Your task to perform on an android device: Go to display settings Image 0: 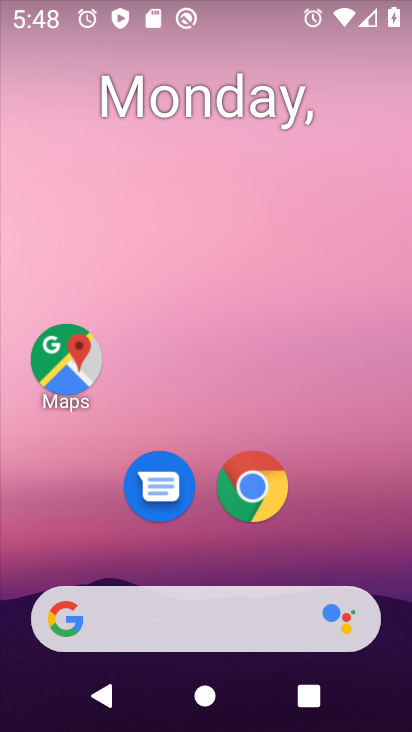
Step 0: drag from (287, 539) to (347, 119)
Your task to perform on an android device: Go to display settings Image 1: 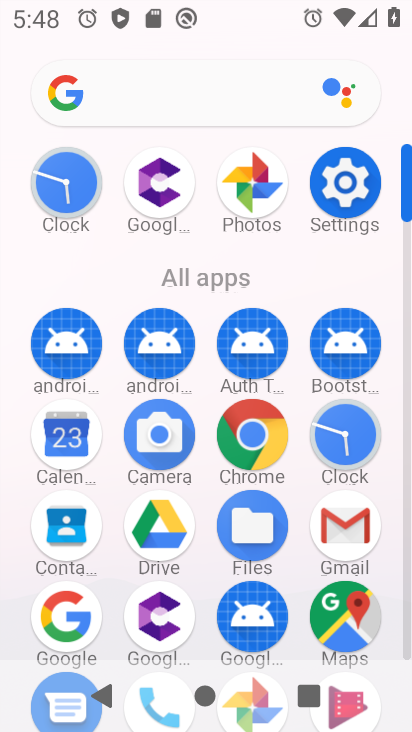
Step 1: click (347, 190)
Your task to perform on an android device: Go to display settings Image 2: 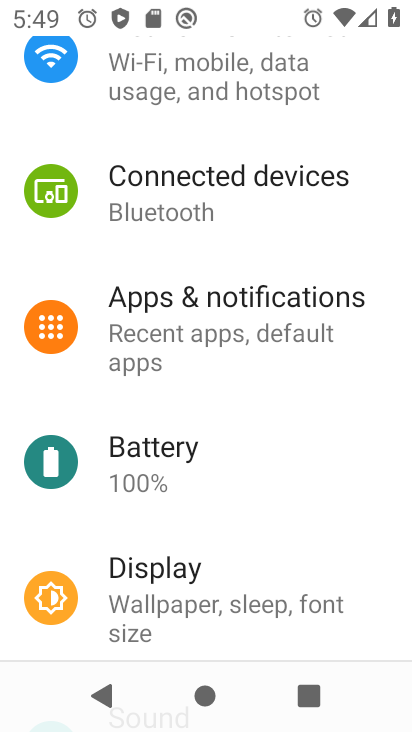
Step 2: click (211, 588)
Your task to perform on an android device: Go to display settings Image 3: 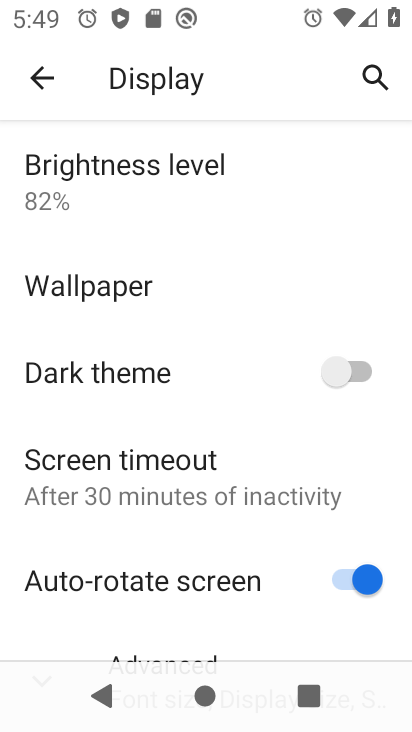
Step 3: task complete